Your task to perform on an android device: turn on javascript in the chrome app Image 0: 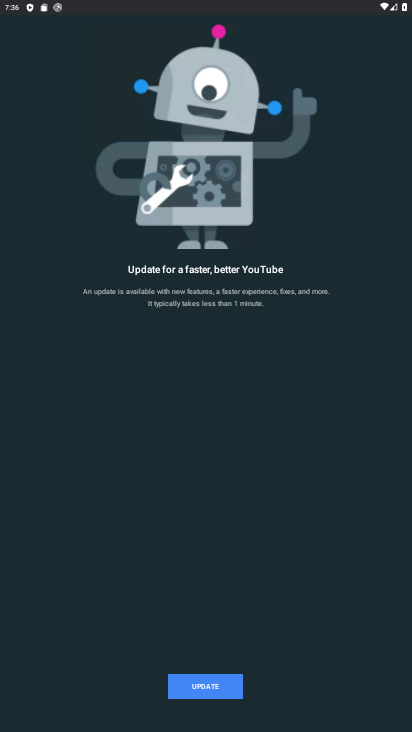
Step 0: press back button
Your task to perform on an android device: turn on javascript in the chrome app Image 1: 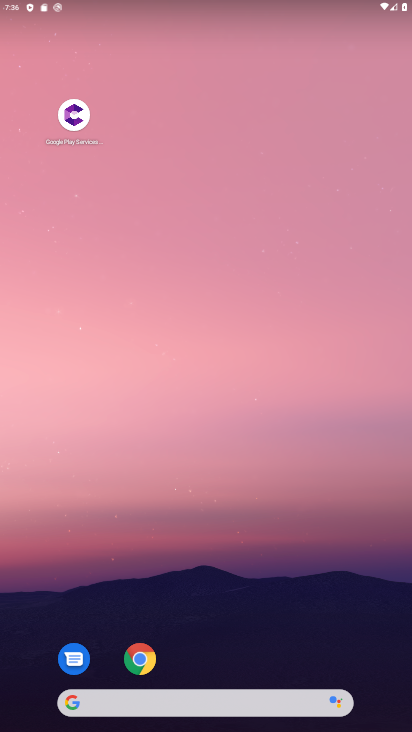
Step 1: click (135, 654)
Your task to perform on an android device: turn on javascript in the chrome app Image 2: 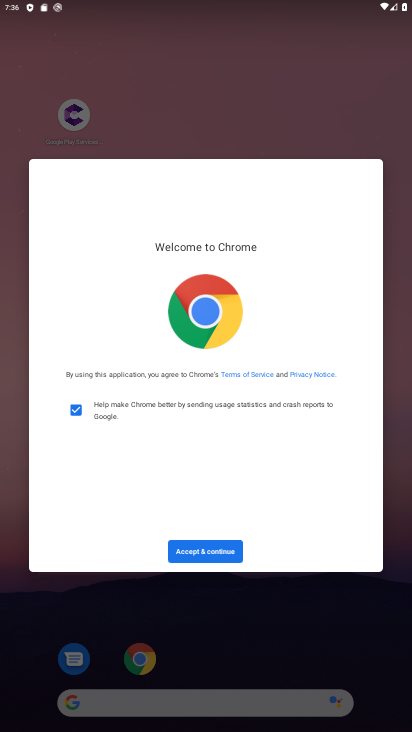
Step 2: click (201, 547)
Your task to perform on an android device: turn on javascript in the chrome app Image 3: 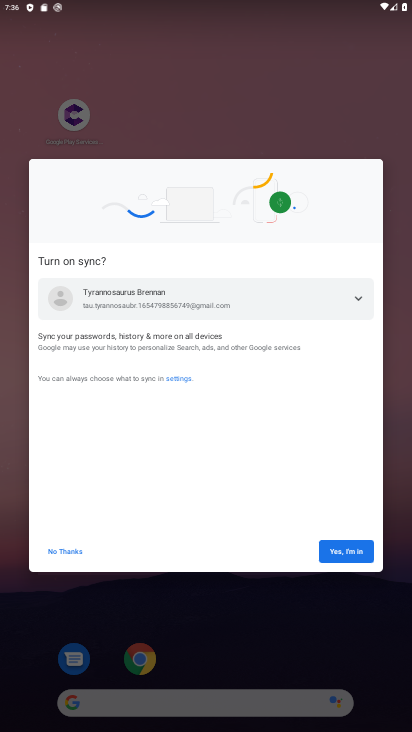
Step 3: click (361, 549)
Your task to perform on an android device: turn on javascript in the chrome app Image 4: 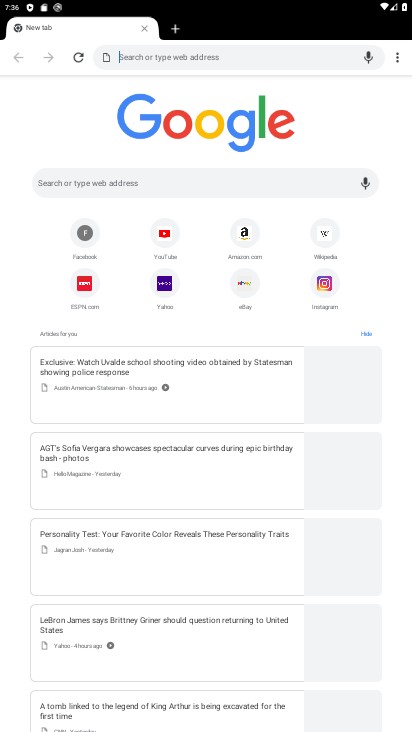
Step 4: click (398, 53)
Your task to perform on an android device: turn on javascript in the chrome app Image 5: 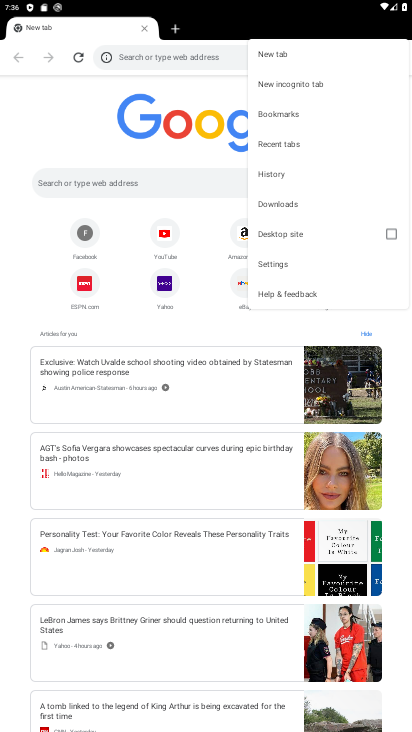
Step 5: click (263, 262)
Your task to perform on an android device: turn on javascript in the chrome app Image 6: 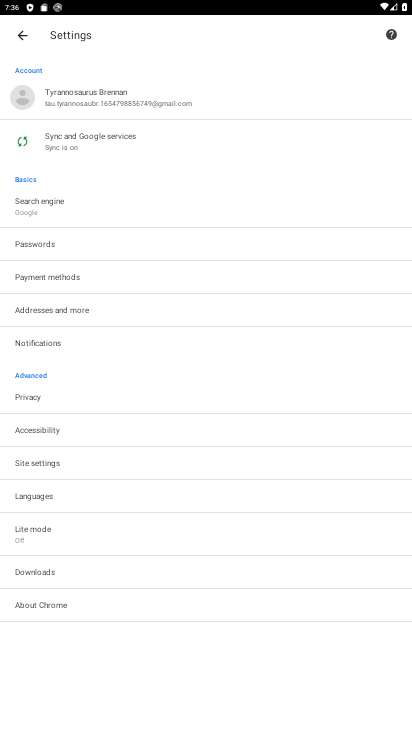
Step 6: click (72, 469)
Your task to perform on an android device: turn on javascript in the chrome app Image 7: 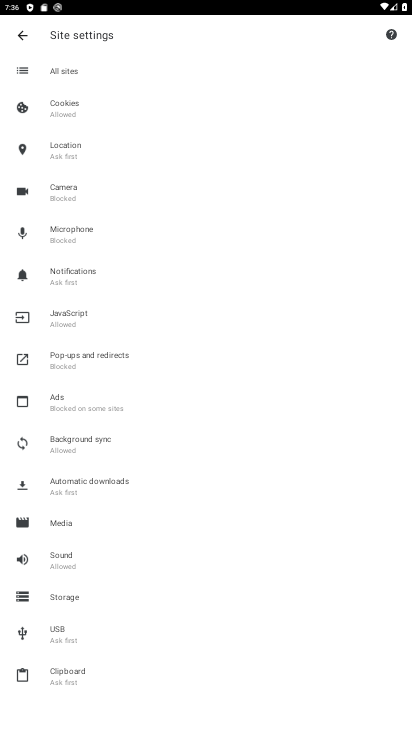
Step 7: click (100, 318)
Your task to perform on an android device: turn on javascript in the chrome app Image 8: 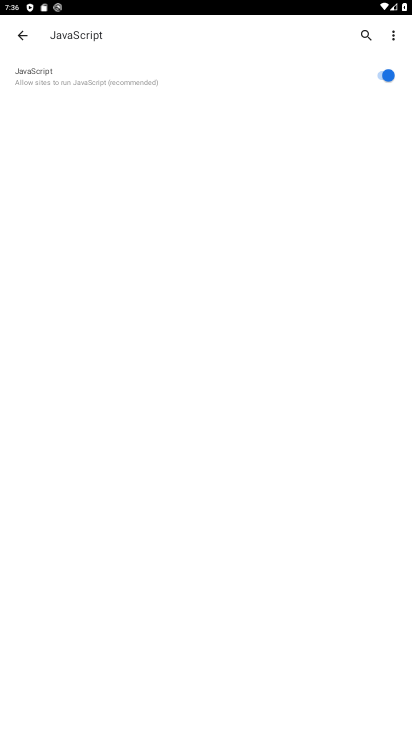
Step 8: task complete